Your task to perform on an android device: See recent photos Image 0: 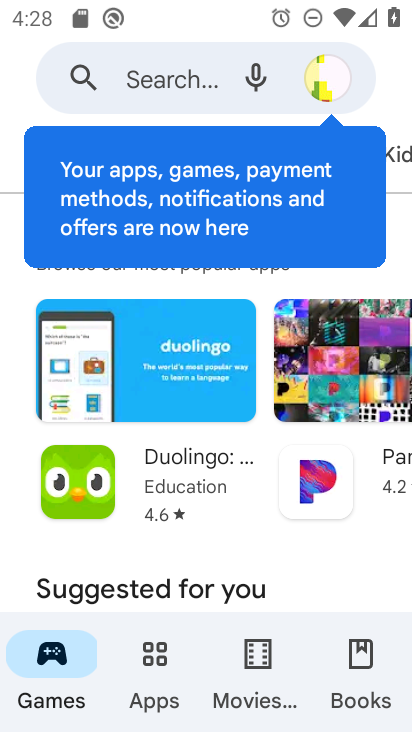
Step 0: press home button
Your task to perform on an android device: See recent photos Image 1: 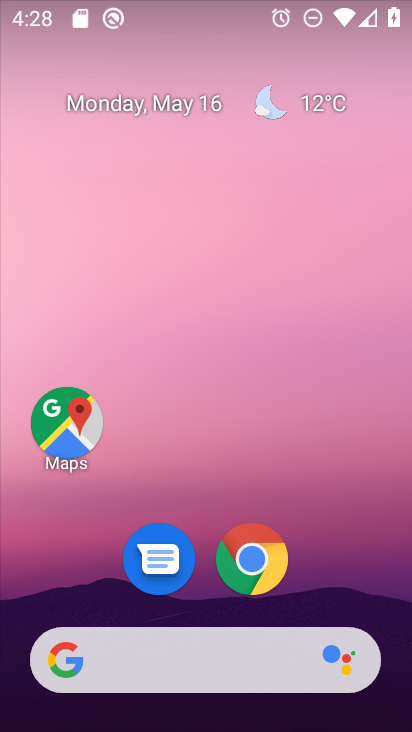
Step 1: drag from (363, 560) to (325, 81)
Your task to perform on an android device: See recent photos Image 2: 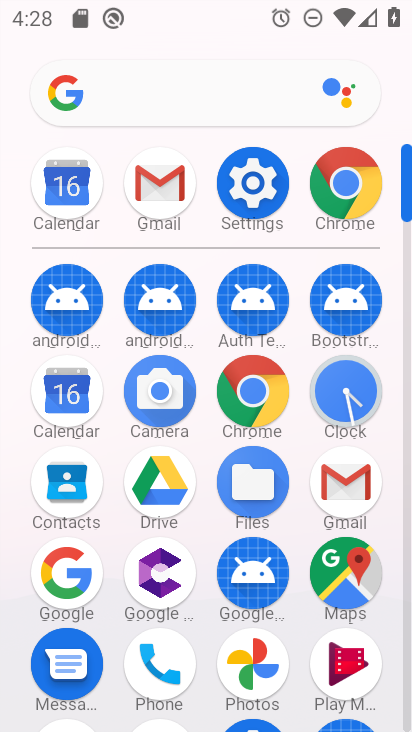
Step 2: click (270, 650)
Your task to perform on an android device: See recent photos Image 3: 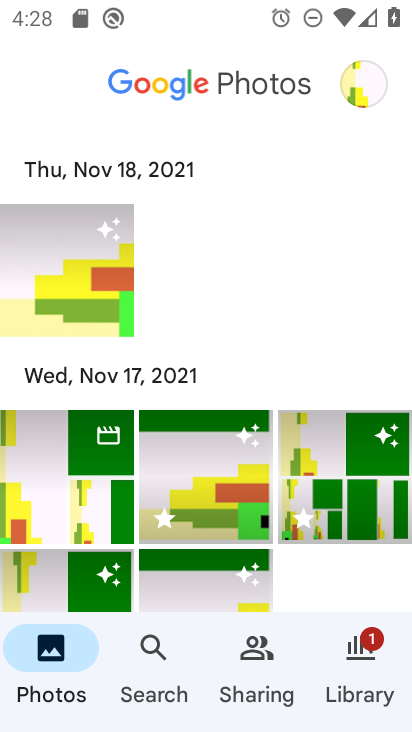
Step 3: click (352, 686)
Your task to perform on an android device: See recent photos Image 4: 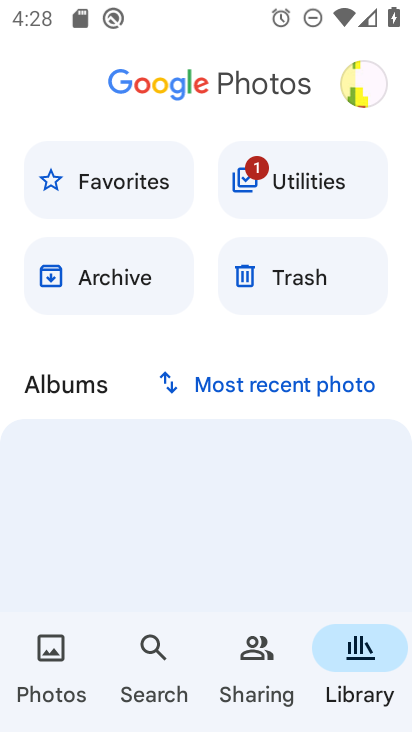
Step 4: click (104, 290)
Your task to perform on an android device: See recent photos Image 5: 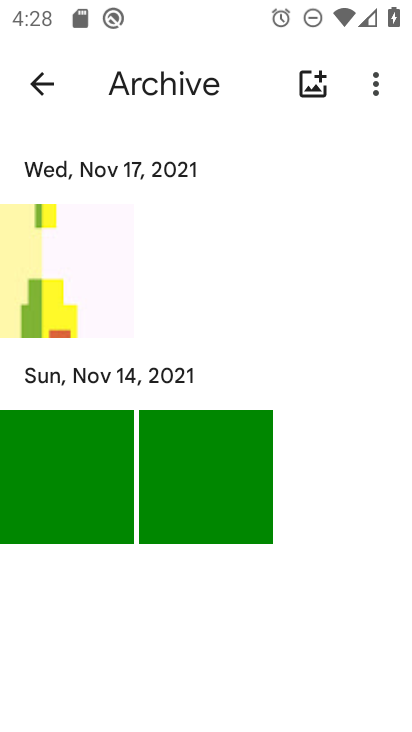
Step 5: task complete